Your task to perform on an android device: toggle wifi Image 0: 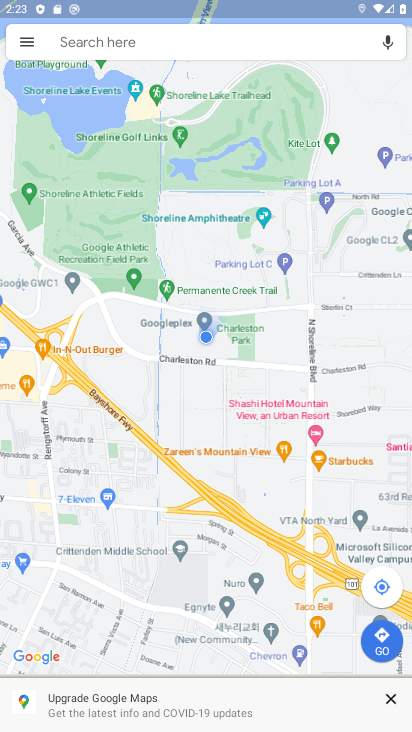
Step 0: press home button
Your task to perform on an android device: toggle wifi Image 1: 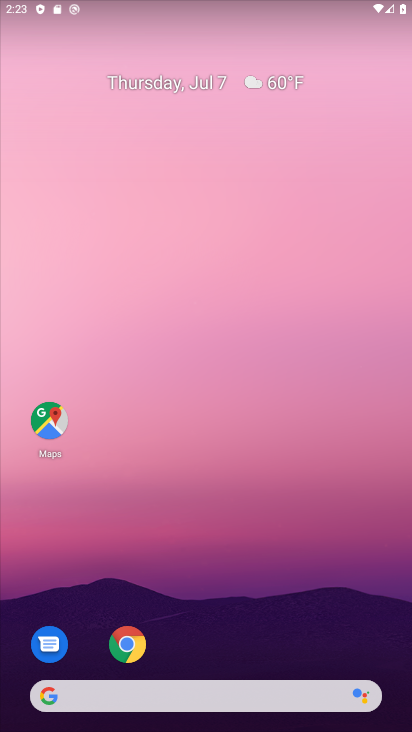
Step 1: drag from (246, 687) to (236, 215)
Your task to perform on an android device: toggle wifi Image 2: 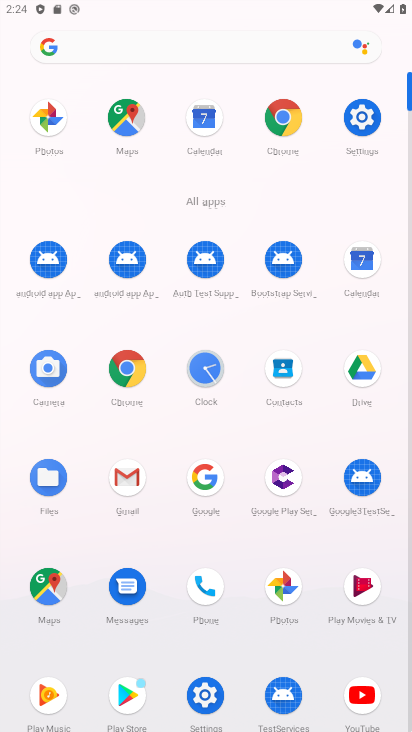
Step 2: click (371, 117)
Your task to perform on an android device: toggle wifi Image 3: 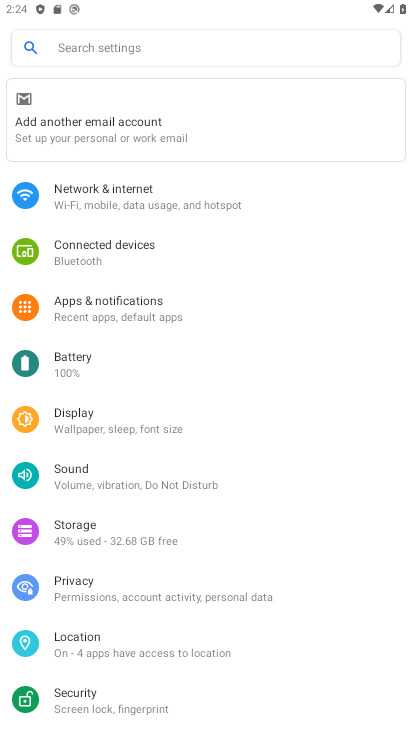
Step 3: click (154, 205)
Your task to perform on an android device: toggle wifi Image 4: 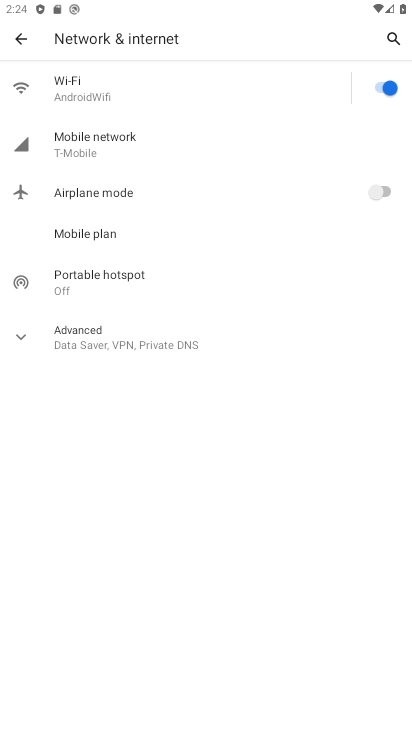
Step 4: click (383, 82)
Your task to perform on an android device: toggle wifi Image 5: 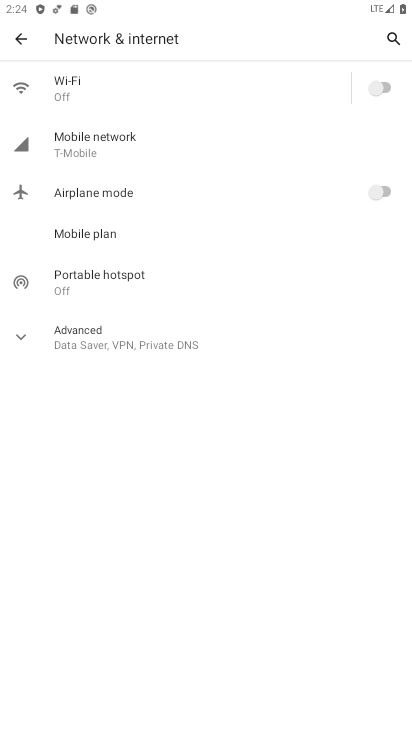
Step 5: task complete